Your task to perform on an android device: Search for Italian restaurants on Maps Image 0: 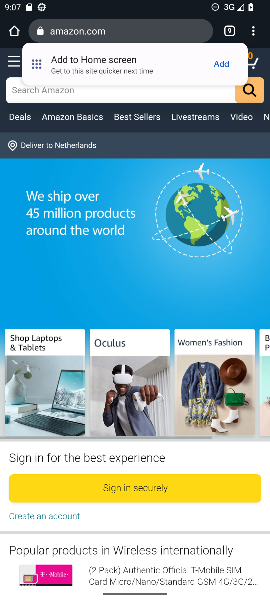
Step 0: press home button
Your task to perform on an android device: Search for Italian restaurants on Maps Image 1: 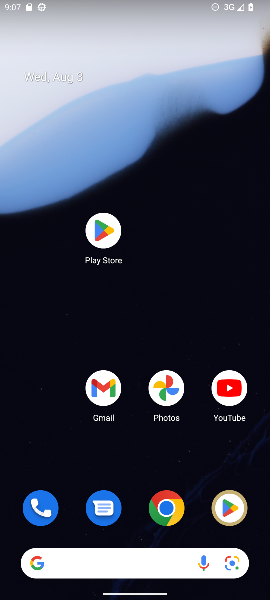
Step 1: drag from (164, 543) to (240, 558)
Your task to perform on an android device: Search for Italian restaurants on Maps Image 2: 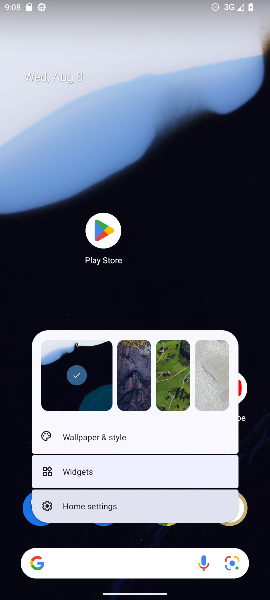
Step 2: click (40, 122)
Your task to perform on an android device: Search for Italian restaurants on Maps Image 3: 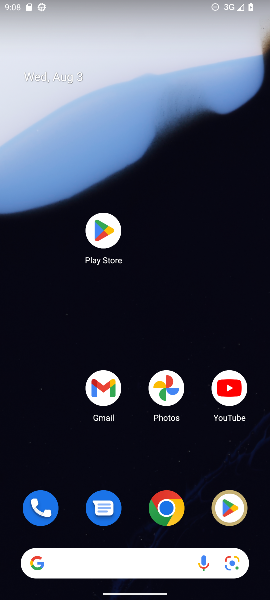
Step 3: click (108, 588)
Your task to perform on an android device: Search for Italian restaurants on Maps Image 4: 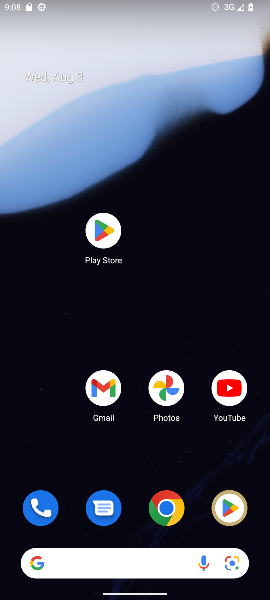
Step 4: drag from (155, 536) to (119, 62)
Your task to perform on an android device: Search for Italian restaurants on Maps Image 5: 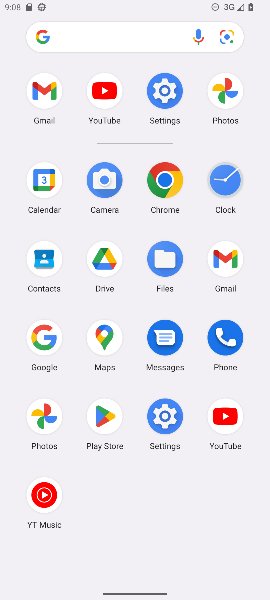
Step 5: click (101, 344)
Your task to perform on an android device: Search for Italian restaurants on Maps Image 6: 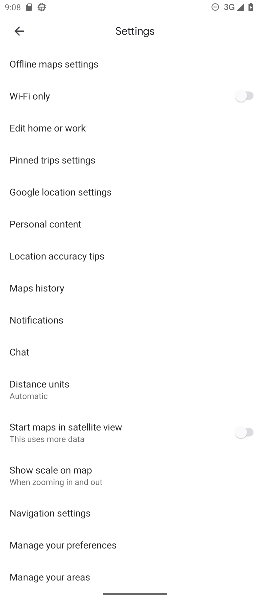
Step 6: click (15, 28)
Your task to perform on an android device: Search for Italian restaurants on Maps Image 7: 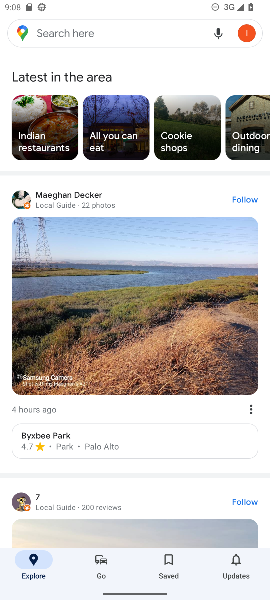
Step 7: click (97, 33)
Your task to perform on an android device: Search for Italian restaurants on Maps Image 8: 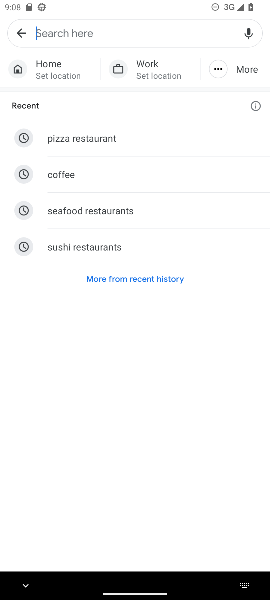
Step 8: type "Italian restaurants"
Your task to perform on an android device: Search for Italian restaurants on Maps Image 9: 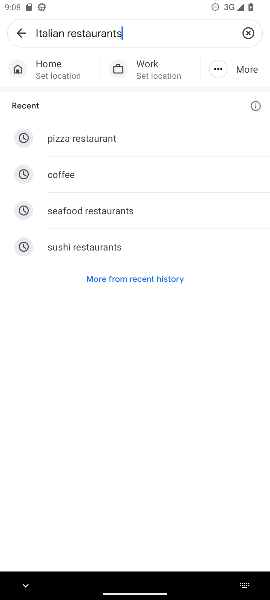
Step 9: type ""
Your task to perform on an android device: Search for Italian restaurants on Maps Image 10: 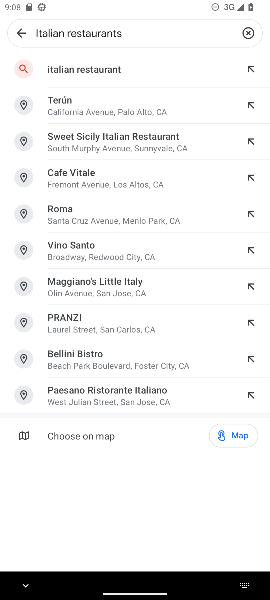
Step 10: click (105, 64)
Your task to perform on an android device: Search for Italian restaurants on Maps Image 11: 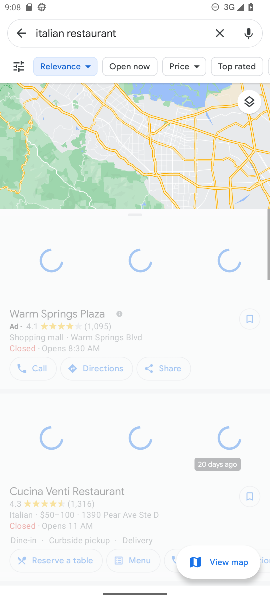
Step 11: task complete